Your task to perform on an android device: toggle show notifications on the lock screen Image 0: 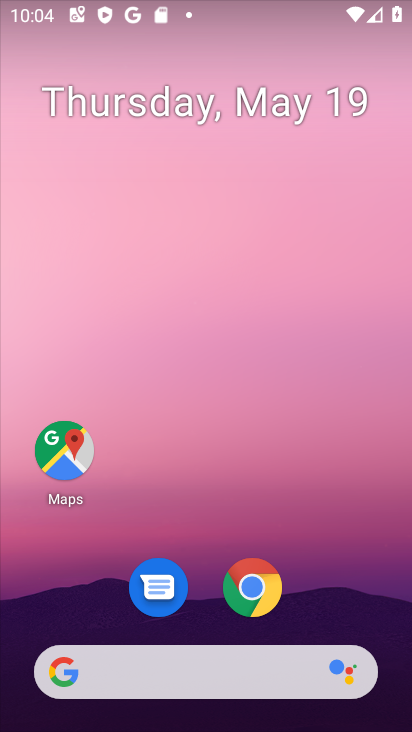
Step 0: drag from (377, 628) to (344, 199)
Your task to perform on an android device: toggle show notifications on the lock screen Image 1: 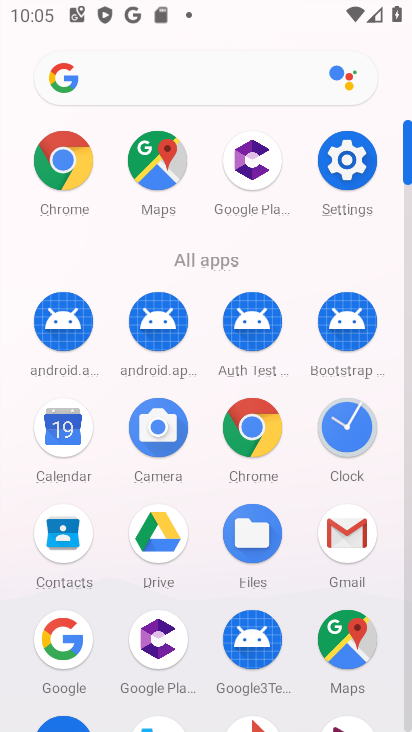
Step 1: click (349, 155)
Your task to perform on an android device: toggle show notifications on the lock screen Image 2: 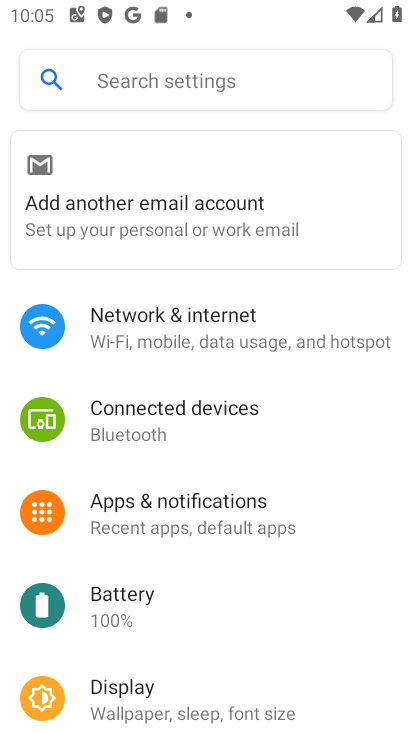
Step 2: click (293, 525)
Your task to perform on an android device: toggle show notifications on the lock screen Image 3: 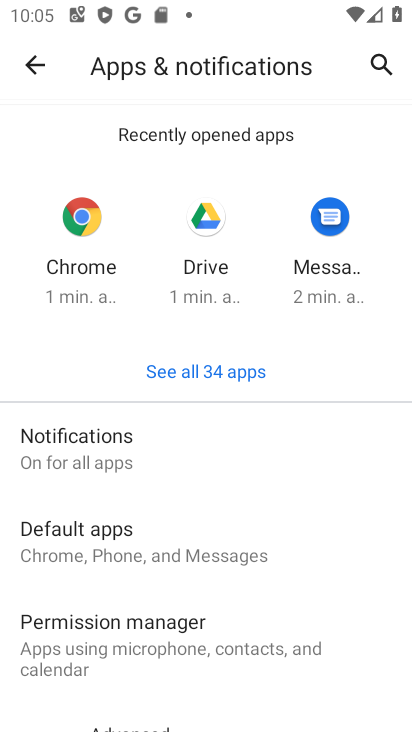
Step 3: drag from (271, 684) to (260, 445)
Your task to perform on an android device: toggle show notifications on the lock screen Image 4: 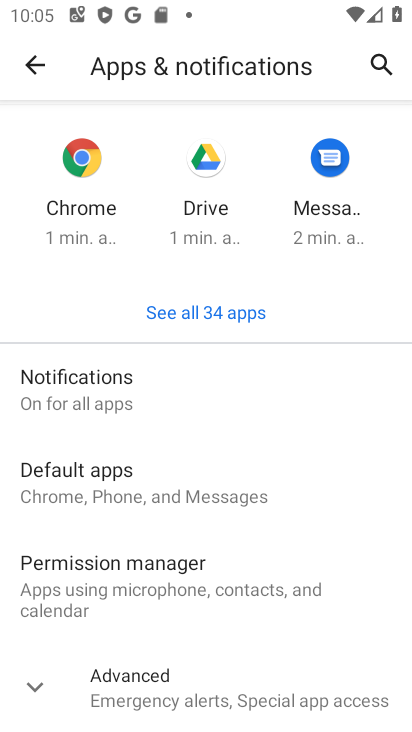
Step 4: click (278, 386)
Your task to perform on an android device: toggle show notifications on the lock screen Image 5: 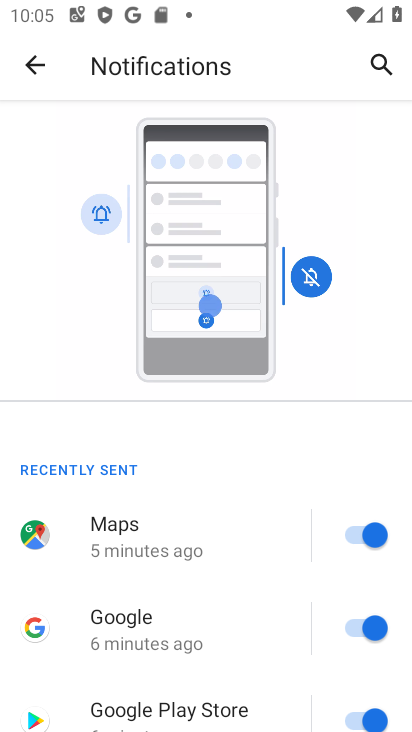
Step 5: drag from (288, 703) to (249, 246)
Your task to perform on an android device: toggle show notifications on the lock screen Image 6: 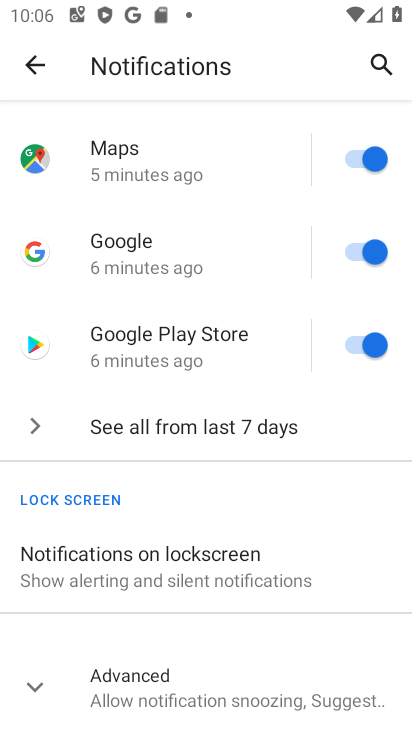
Step 6: click (279, 574)
Your task to perform on an android device: toggle show notifications on the lock screen Image 7: 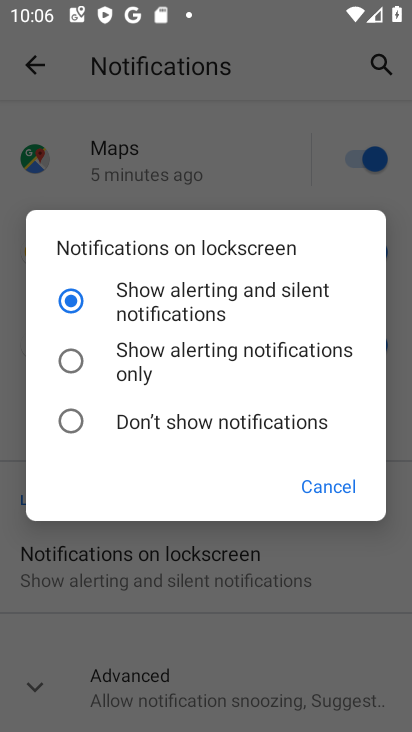
Step 7: click (286, 348)
Your task to perform on an android device: toggle show notifications on the lock screen Image 8: 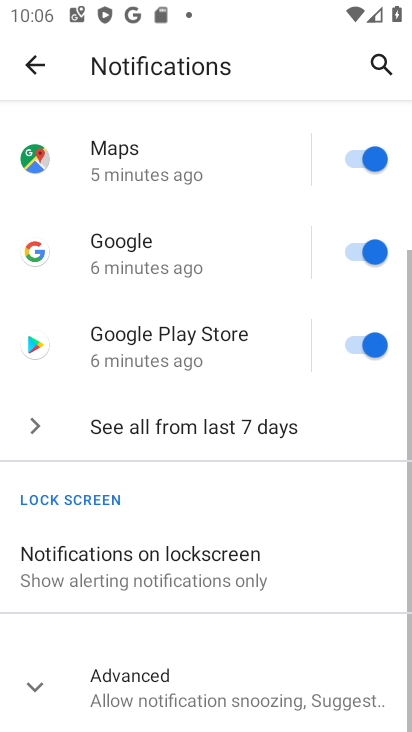
Step 8: task complete